Your task to perform on an android device: Open battery settings Image 0: 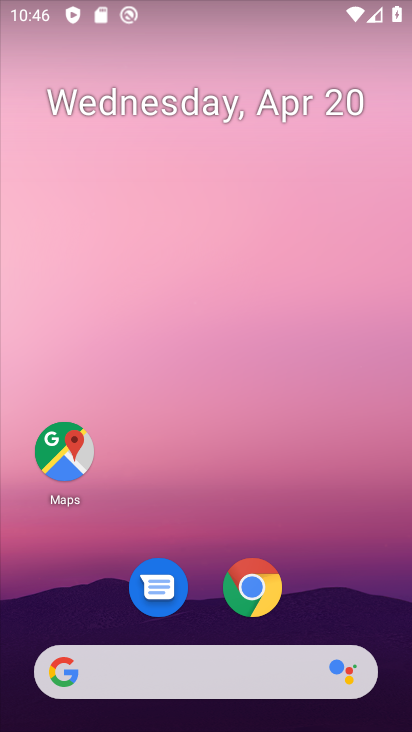
Step 0: drag from (351, 576) to (277, 27)
Your task to perform on an android device: Open battery settings Image 1: 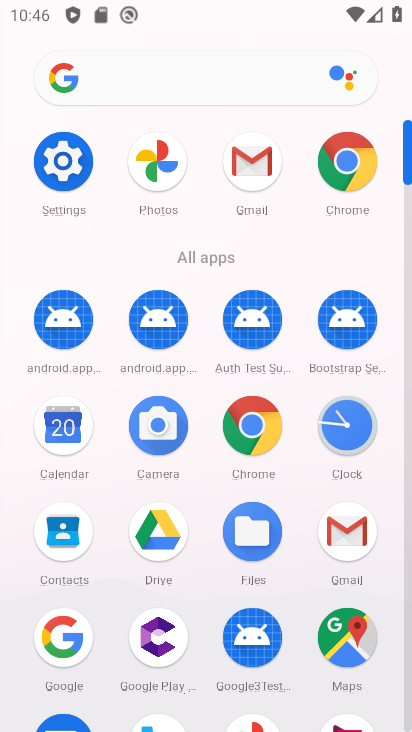
Step 1: click (60, 159)
Your task to perform on an android device: Open battery settings Image 2: 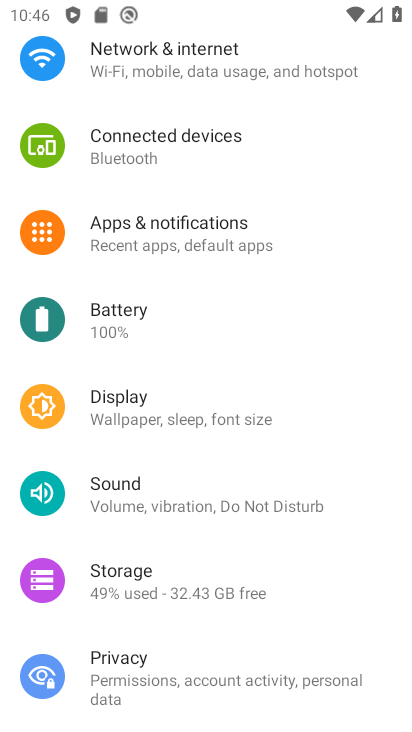
Step 2: drag from (287, 174) to (306, 577)
Your task to perform on an android device: Open battery settings Image 3: 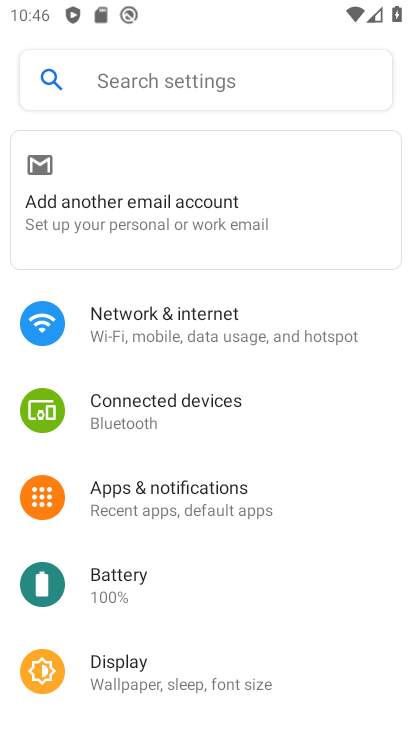
Step 3: click (147, 575)
Your task to perform on an android device: Open battery settings Image 4: 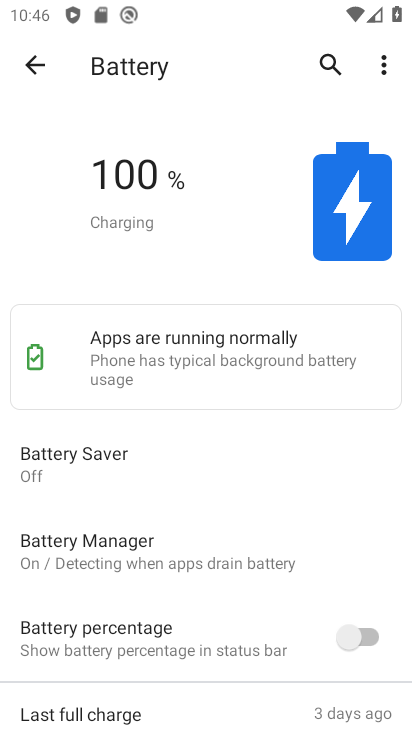
Step 4: task complete